Your task to perform on an android device: uninstall "The Home Depot" Image 0: 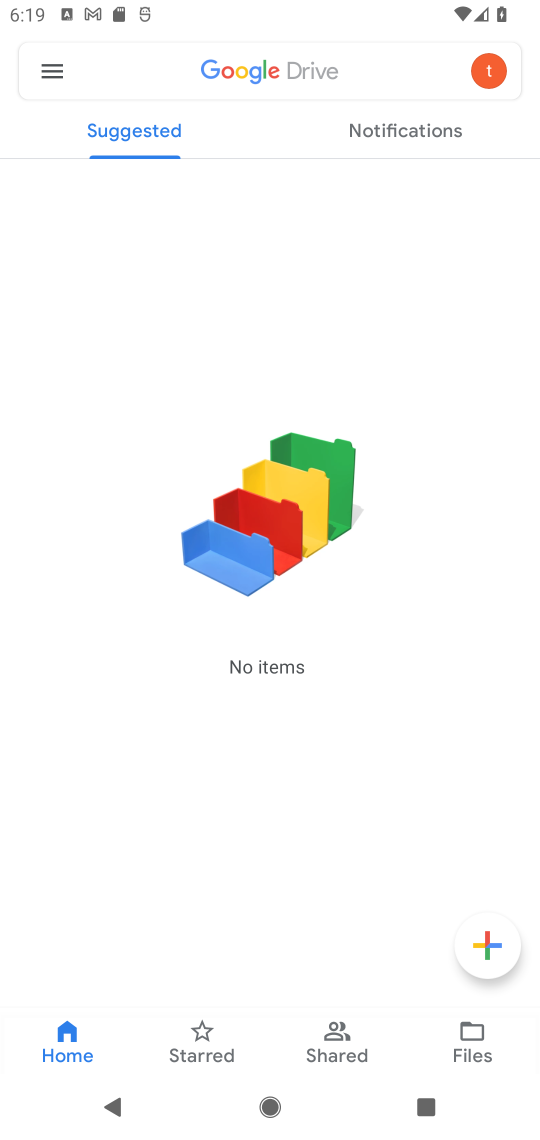
Step 0: press back button
Your task to perform on an android device: uninstall "The Home Depot" Image 1: 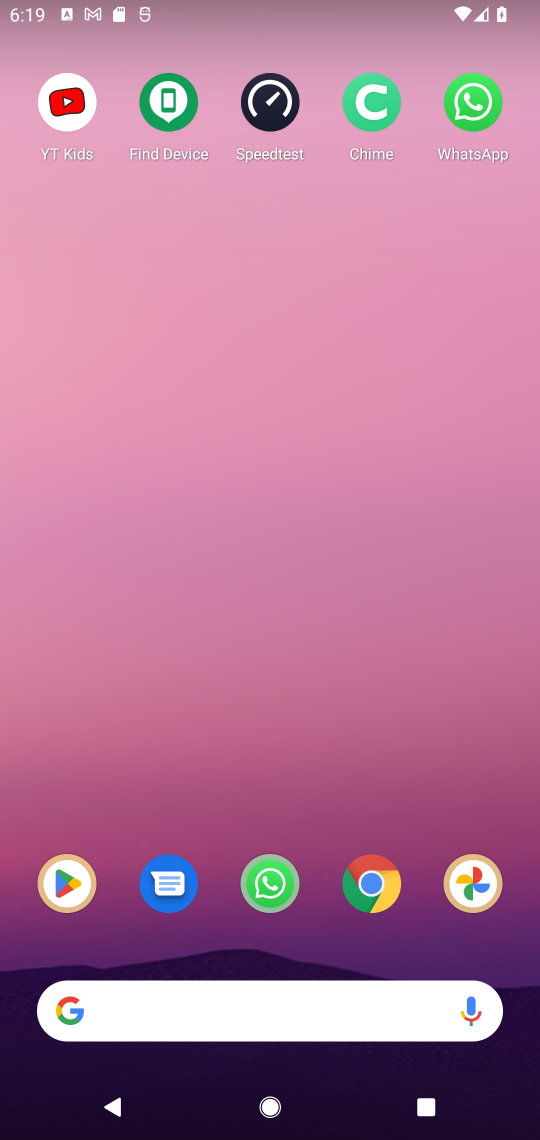
Step 1: click (69, 877)
Your task to perform on an android device: uninstall "The Home Depot" Image 2: 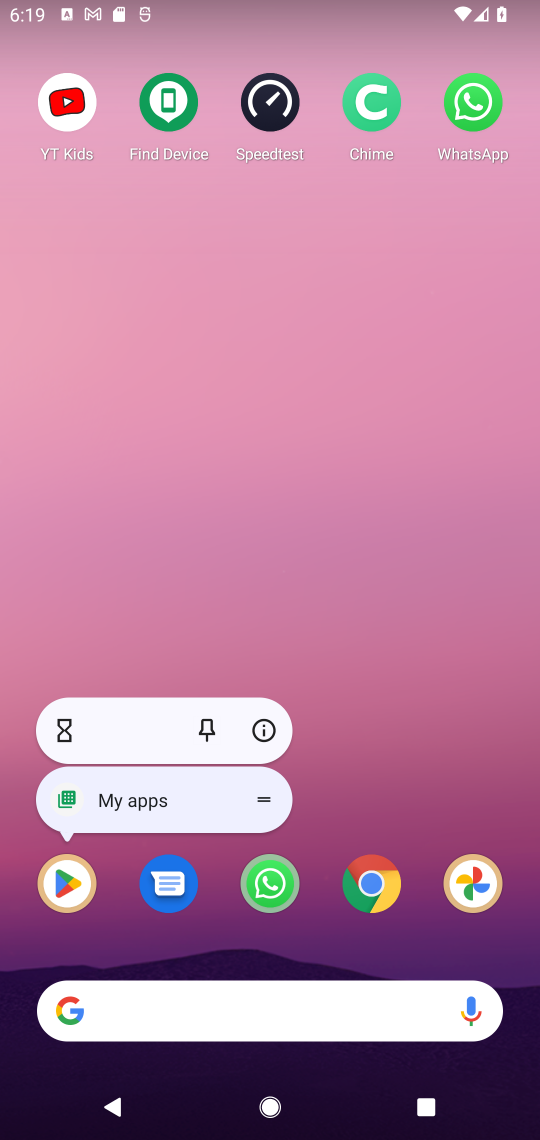
Step 2: click (73, 883)
Your task to perform on an android device: uninstall "The Home Depot" Image 3: 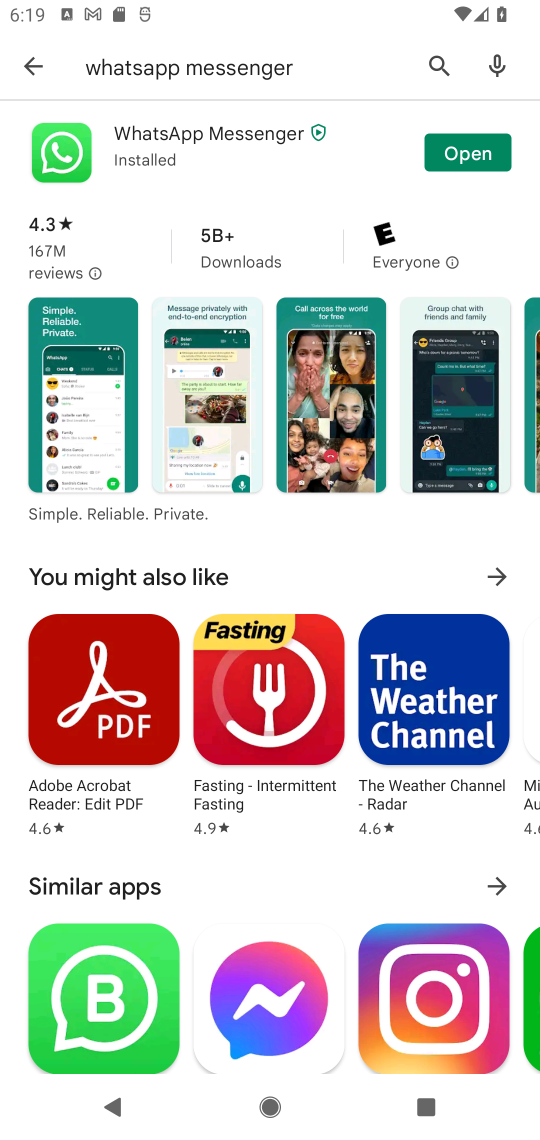
Step 3: click (453, 70)
Your task to perform on an android device: uninstall "The Home Depot" Image 4: 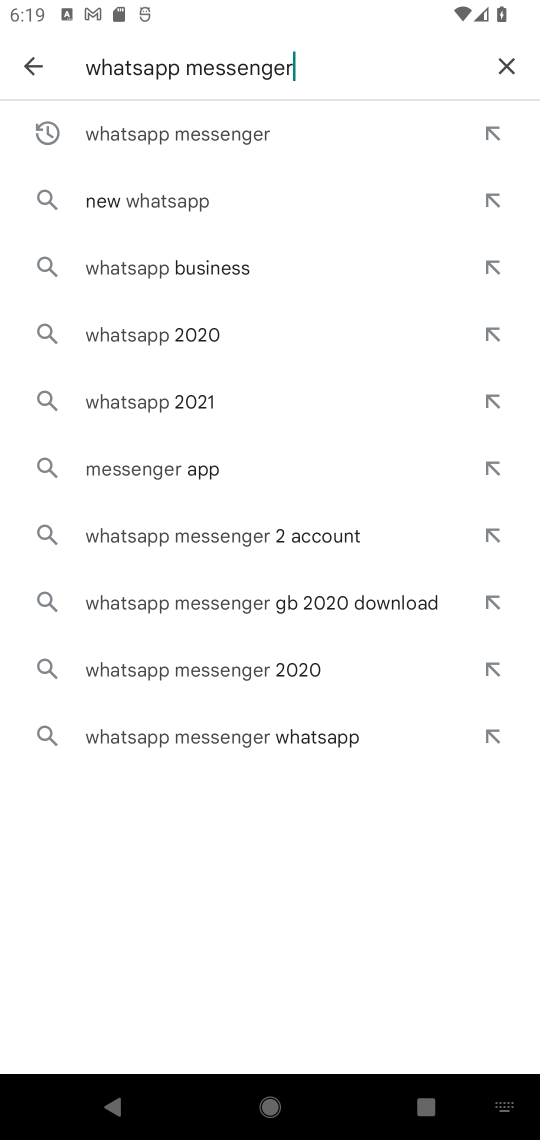
Step 4: click (510, 64)
Your task to perform on an android device: uninstall "The Home Depot" Image 5: 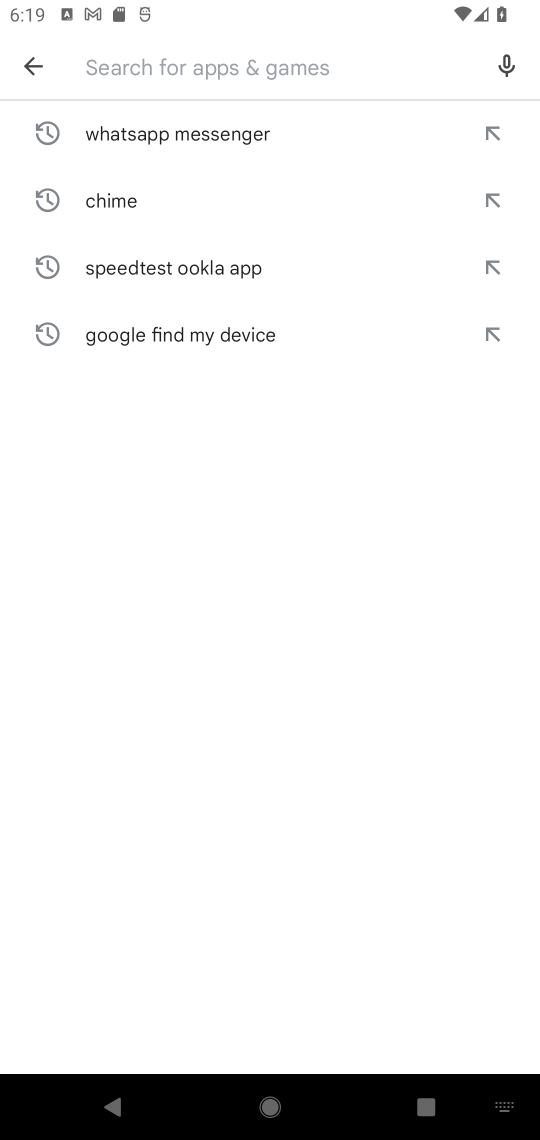
Step 5: click (370, 67)
Your task to perform on an android device: uninstall "The Home Depot" Image 6: 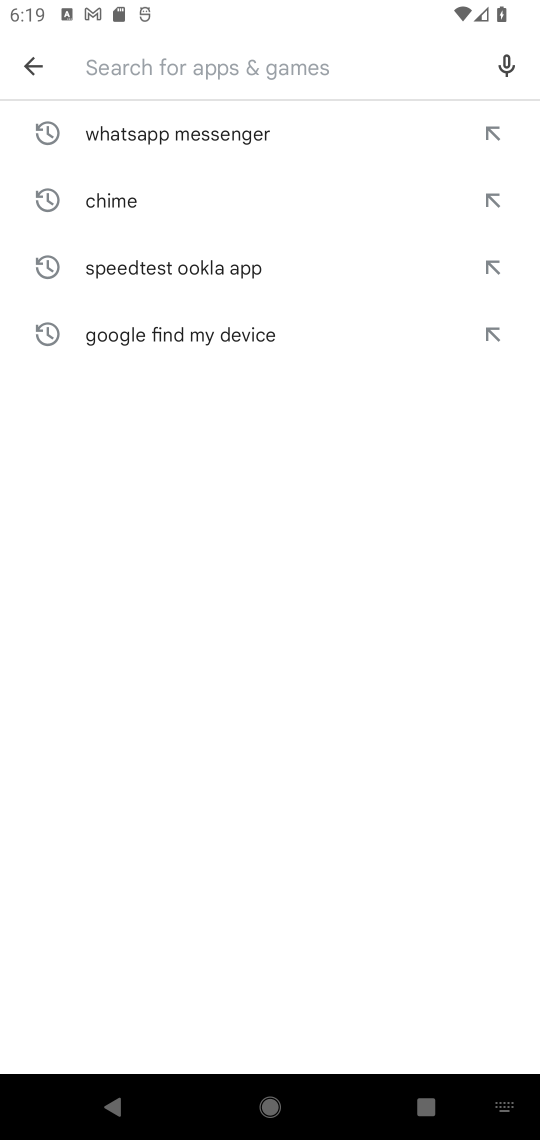
Step 6: type "the home depot"
Your task to perform on an android device: uninstall "The Home Depot" Image 7: 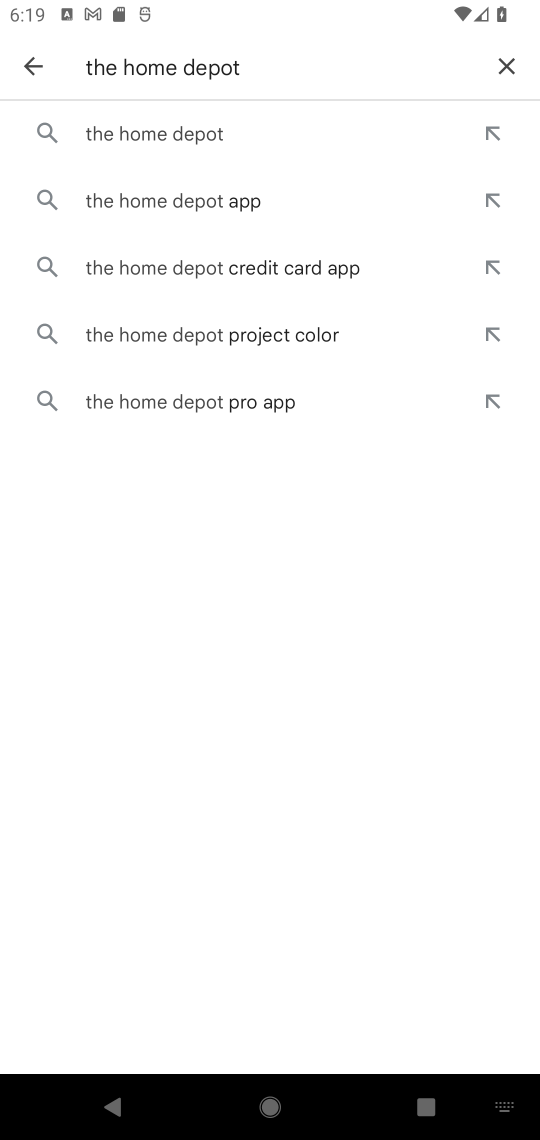
Step 7: click (159, 129)
Your task to perform on an android device: uninstall "The Home Depot" Image 8: 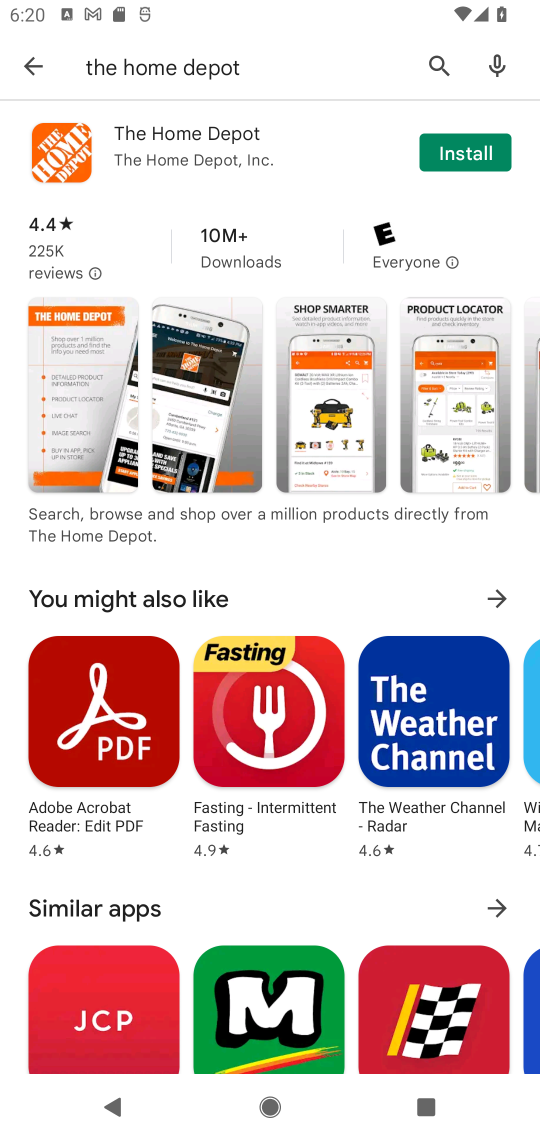
Step 8: task complete